Your task to perform on an android device: What is the recent news? Image 0: 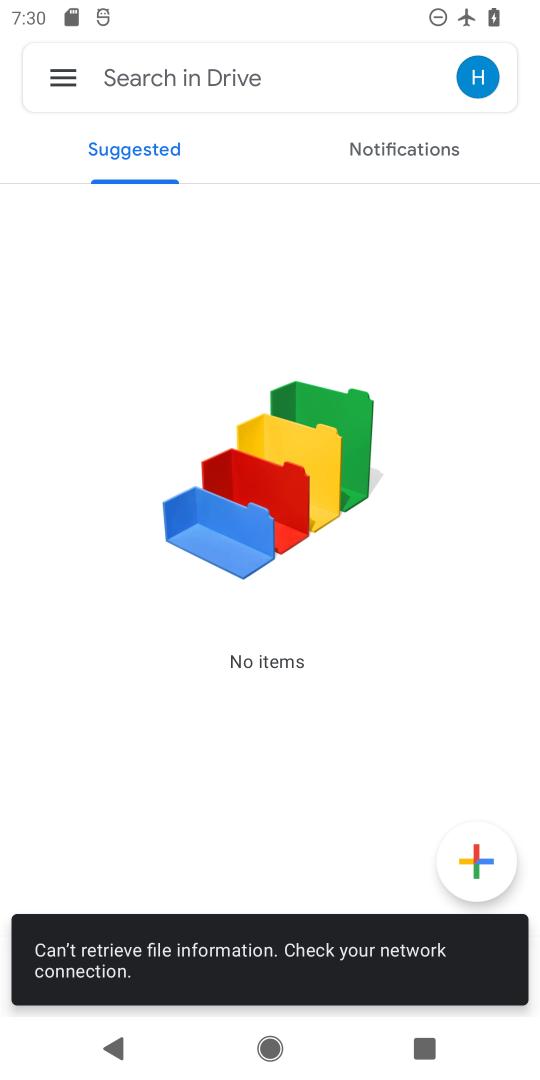
Step 0: press back button
Your task to perform on an android device: What is the recent news? Image 1: 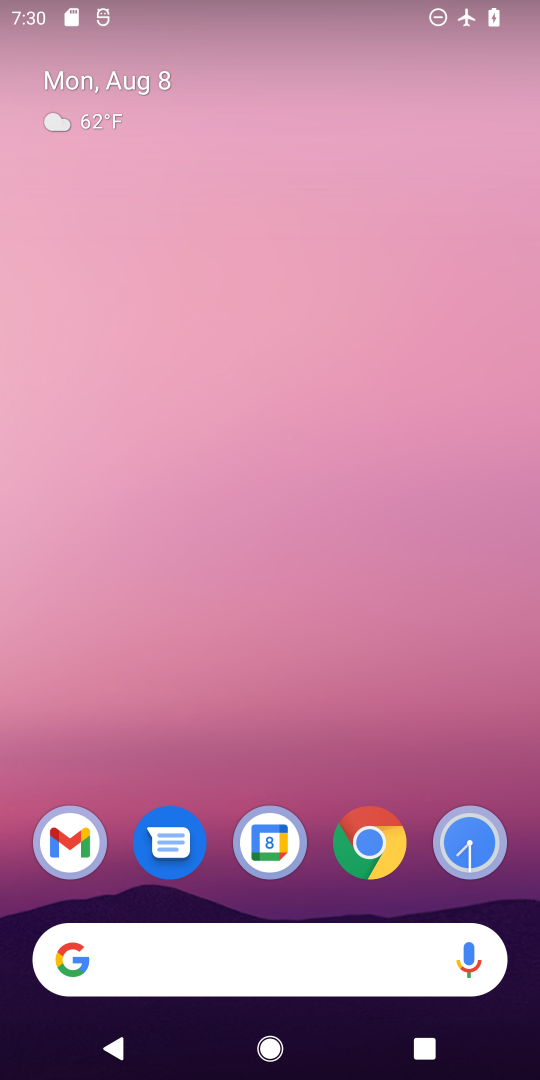
Step 1: click (255, 965)
Your task to perform on an android device: What is the recent news? Image 2: 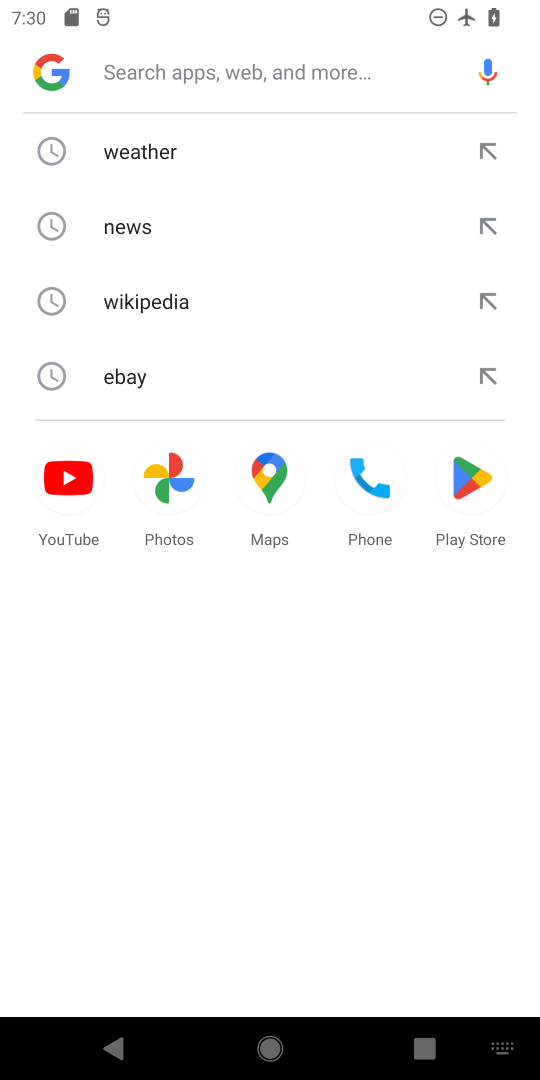
Step 2: click (96, 207)
Your task to perform on an android device: What is the recent news? Image 3: 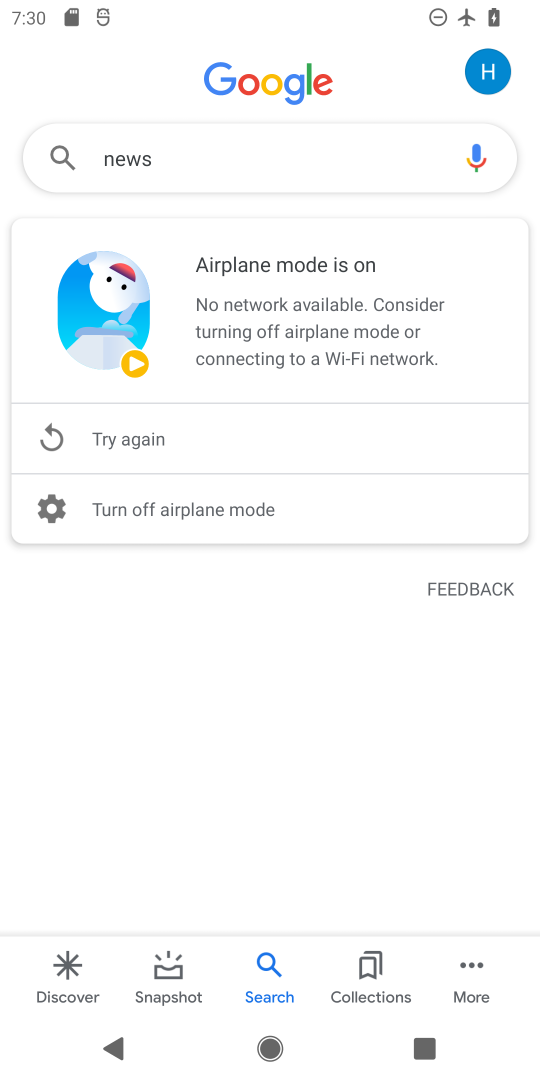
Step 3: task complete